Your task to perform on an android device: Open the calendar app, open the side menu, and click the "Day" option Image 0: 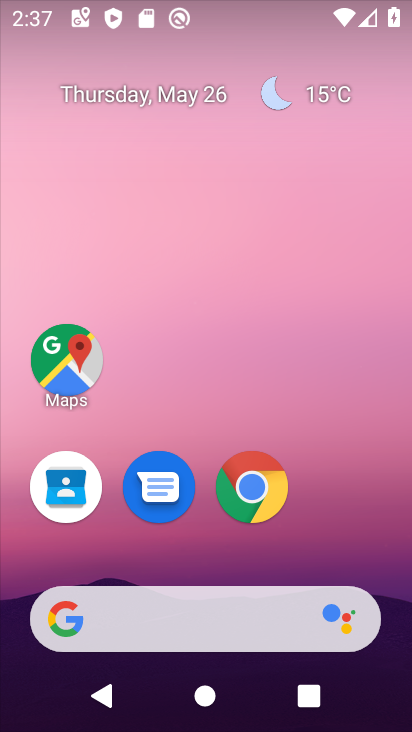
Step 0: drag from (191, 518) to (203, 208)
Your task to perform on an android device: Open the calendar app, open the side menu, and click the "Day" option Image 1: 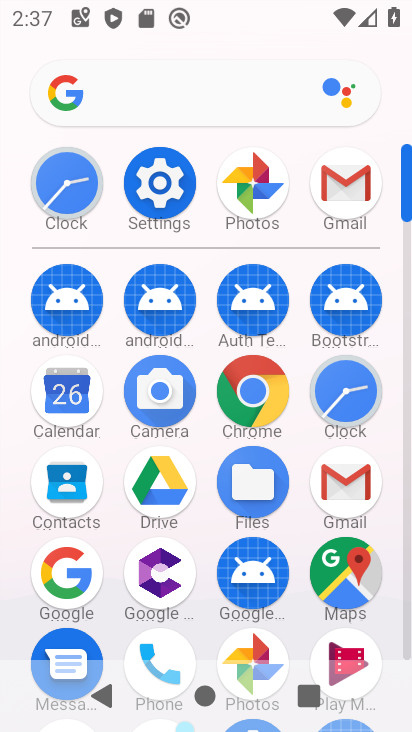
Step 1: click (61, 377)
Your task to perform on an android device: Open the calendar app, open the side menu, and click the "Day" option Image 2: 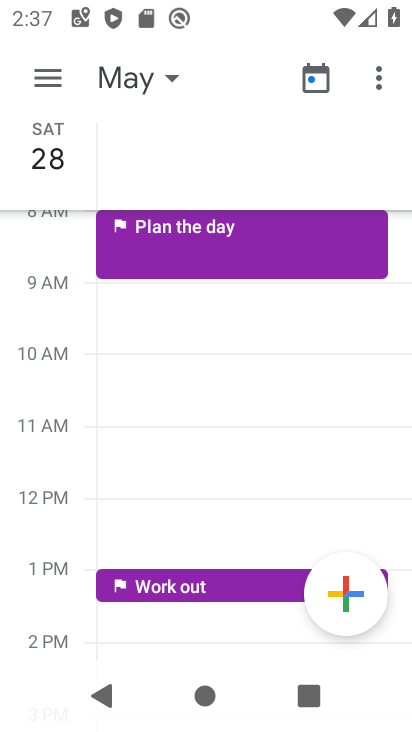
Step 2: click (47, 93)
Your task to perform on an android device: Open the calendar app, open the side menu, and click the "Day" option Image 3: 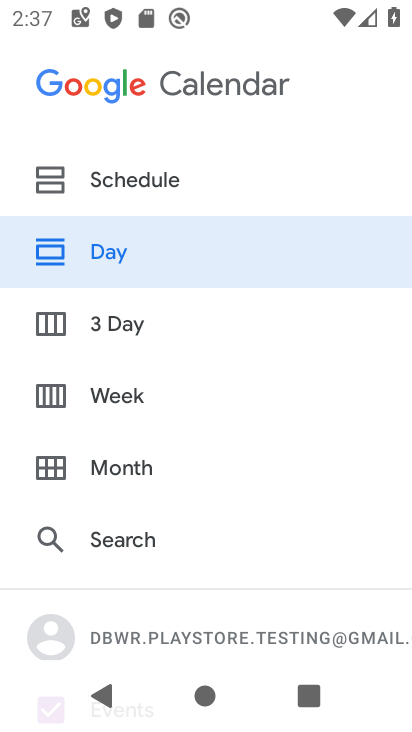
Step 3: click (154, 237)
Your task to perform on an android device: Open the calendar app, open the side menu, and click the "Day" option Image 4: 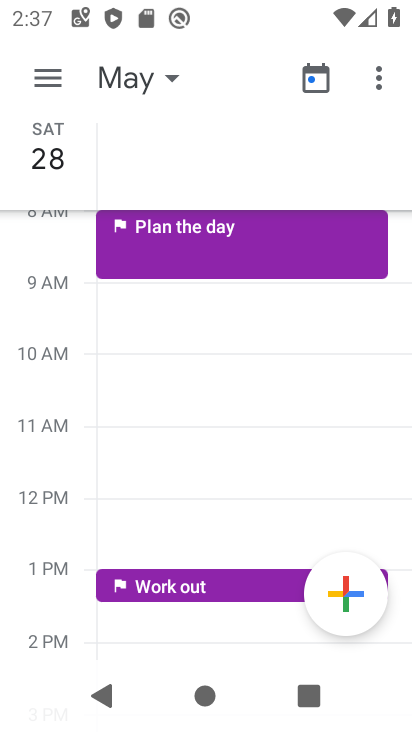
Step 4: task complete